Your task to perform on an android device: Open network settings Image 0: 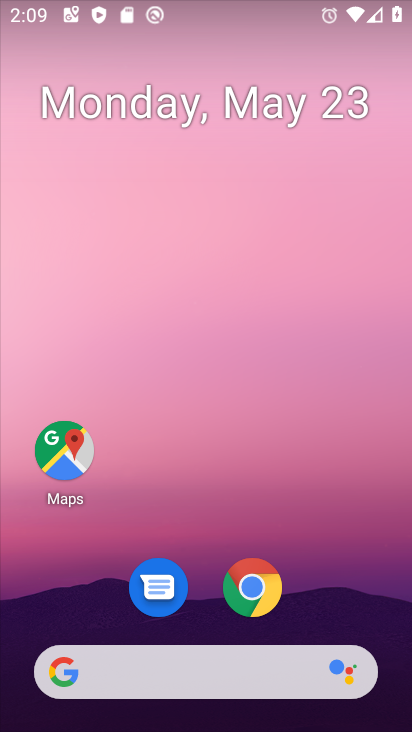
Step 0: drag from (341, 621) to (222, 83)
Your task to perform on an android device: Open network settings Image 1: 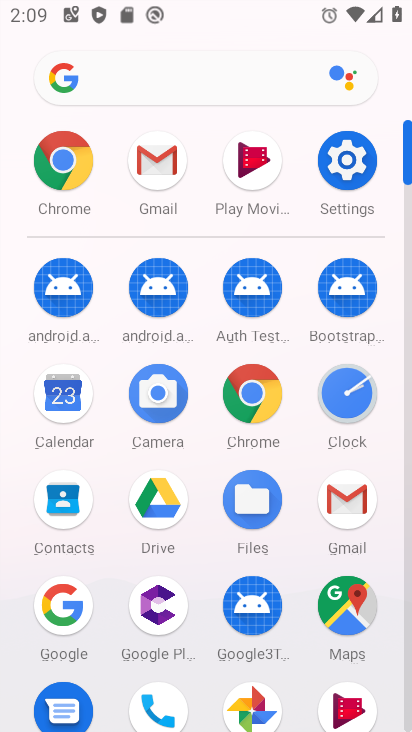
Step 1: click (370, 166)
Your task to perform on an android device: Open network settings Image 2: 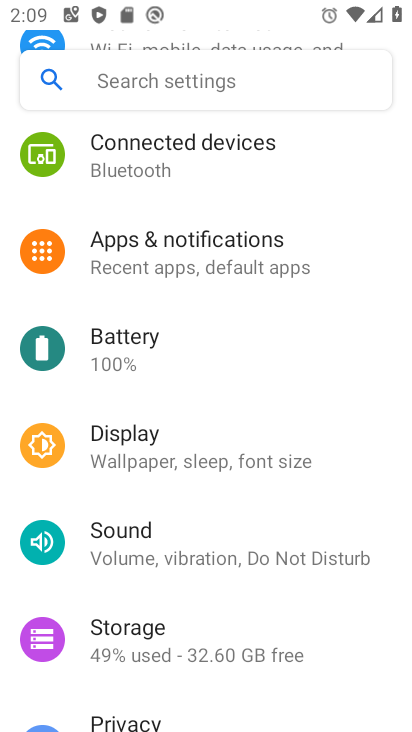
Step 2: drag from (162, 152) to (297, 458)
Your task to perform on an android device: Open network settings Image 3: 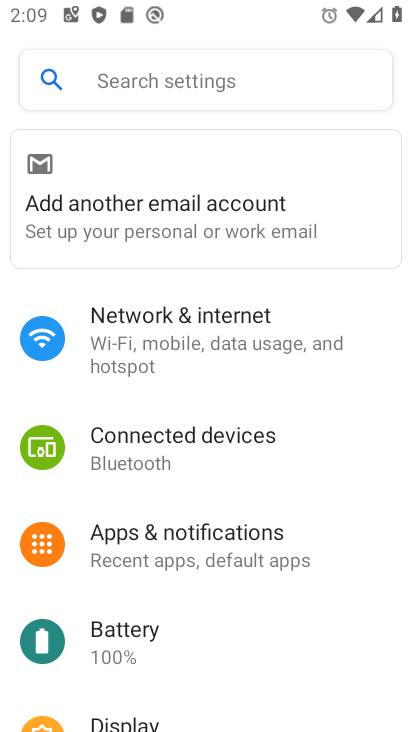
Step 3: click (211, 321)
Your task to perform on an android device: Open network settings Image 4: 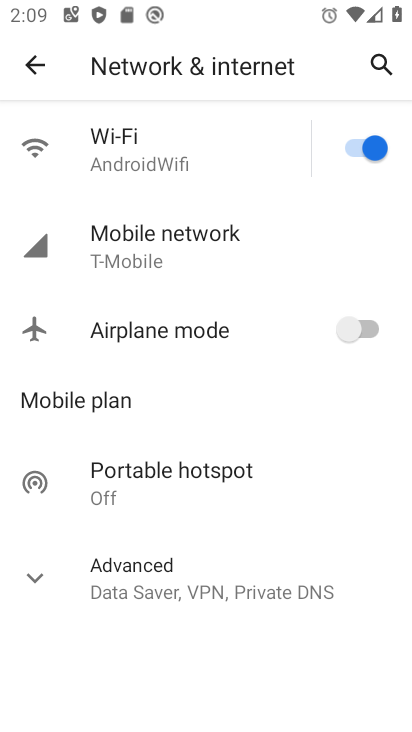
Step 4: task complete